Your task to perform on an android device: Open display settings Image 0: 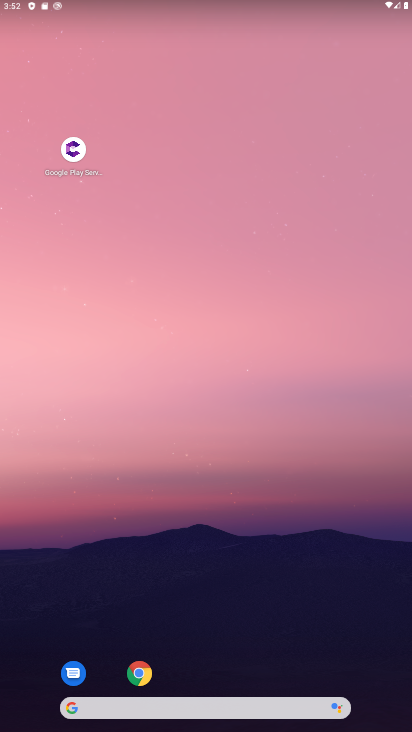
Step 0: drag from (229, 666) to (212, 171)
Your task to perform on an android device: Open display settings Image 1: 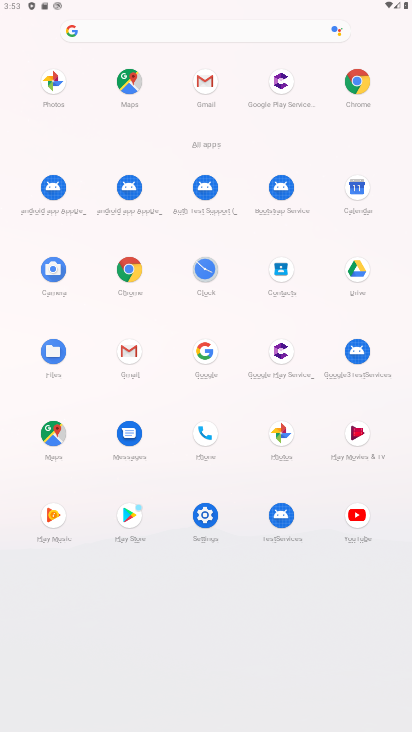
Step 1: click (207, 517)
Your task to perform on an android device: Open display settings Image 2: 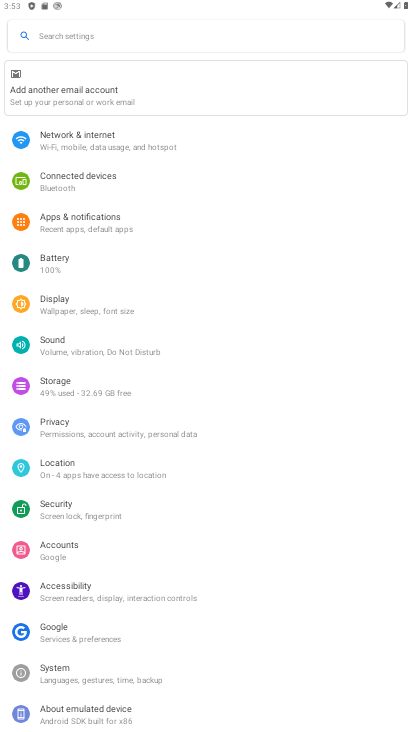
Step 2: click (75, 307)
Your task to perform on an android device: Open display settings Image 3: 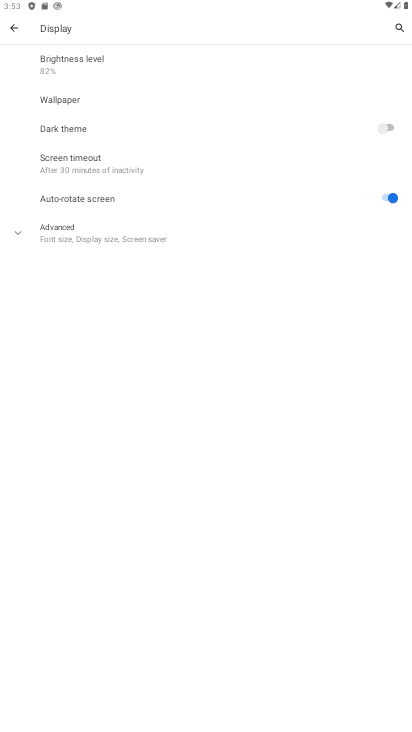
Step 3: task complete